Your task to perform on an android device: Open Chrome and go to settings Image 0: 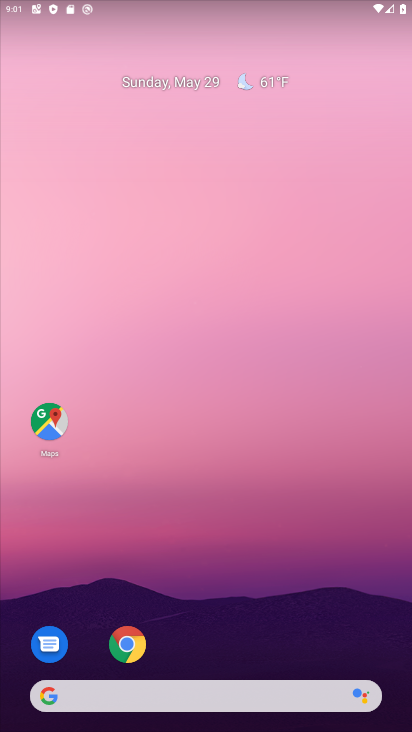
Step 0: drag from (232, 560) to (197, 57)
Your task to perform on an android device: Open Chrome and go to settings Image 1: 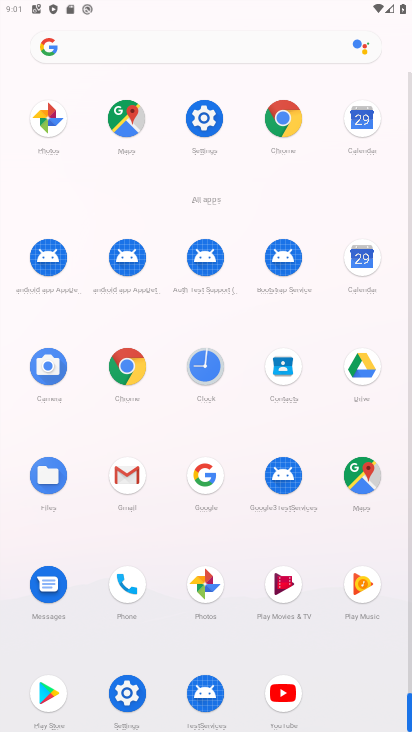
Step 1: drag from (6, 572) to (20, 251)
Your task to perform on an android device: Open Chrome and go to settings Image 2: 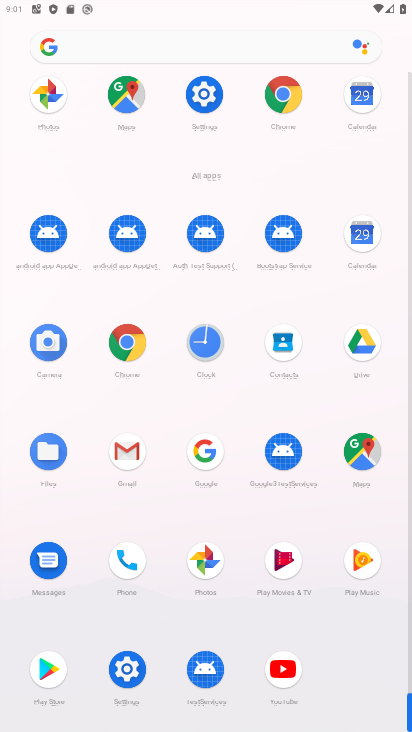
Step 2: click (124, 340)
Your task to perform on an android device: Open Chrome and go to settings Image 3: 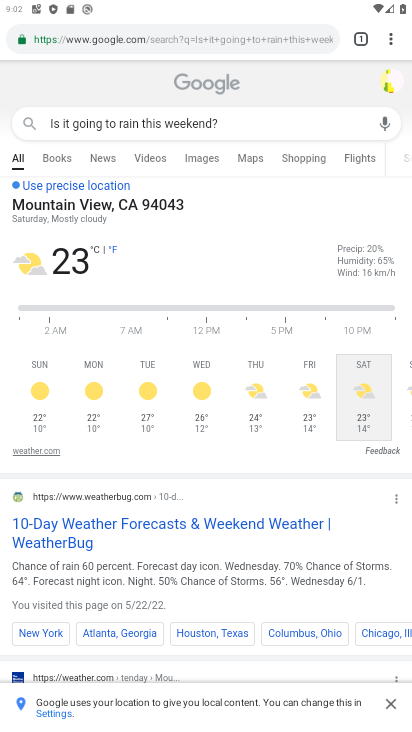
Step 3: task complete